Your task to perform on an android device: Open calendar and show me the second week of next month Image 0: 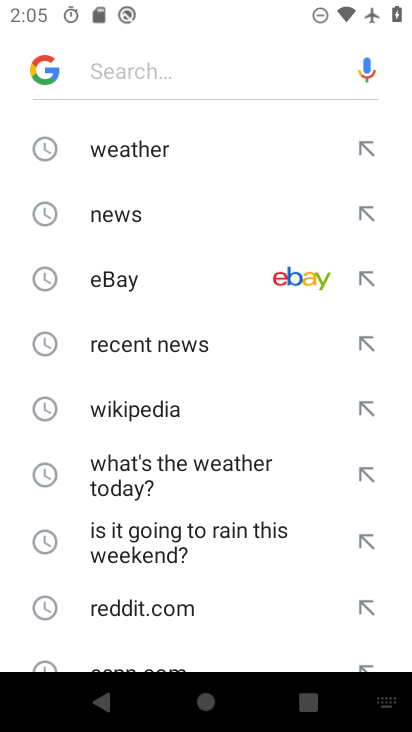
Step 0: press home button
Your task to perform on an android device: Open calendar and show me the second week of next month Image 1: 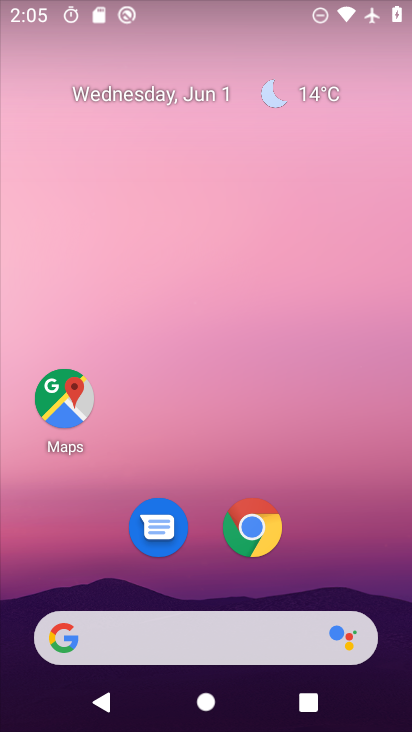
Step 1: drag from (201, 621) to (233, 152)
Your task to perform on an android device: Open calendar and show me the second week of next month Image 2: 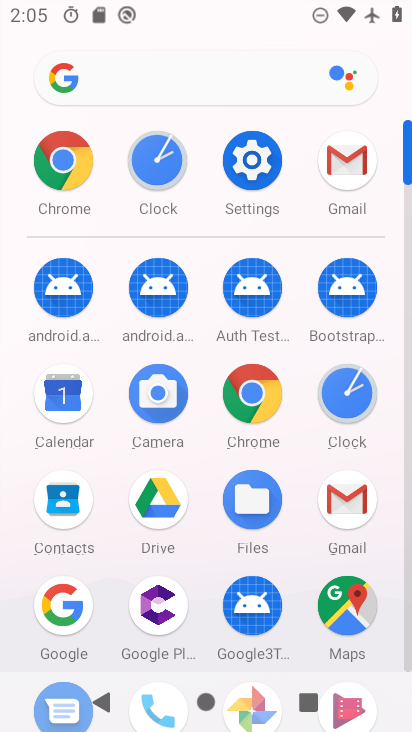
Step 2: click (72, 414)
Your task to perform on an android device: Open calendar and show me the second week of next month Image 3: 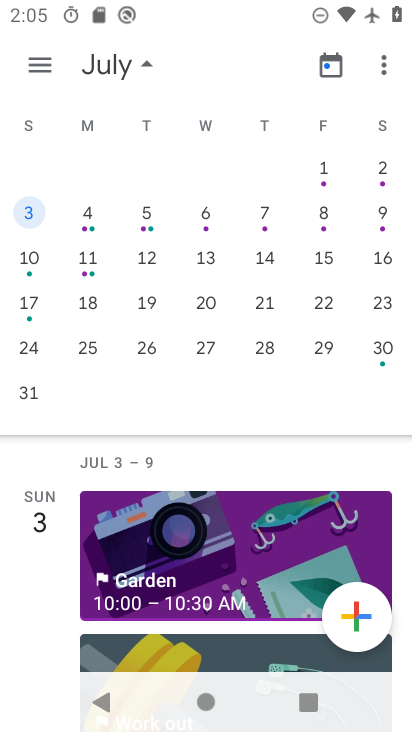
Step 3: click (30, 265)
Your task to perform on an android device: Open calendar and show me the second week of next month Image 4: 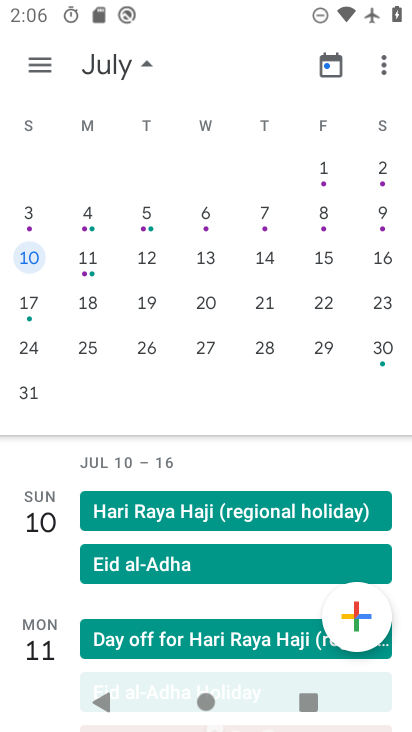
Step 4: task complete